Your task to perform on an android device: turn notification dots off Image 0: 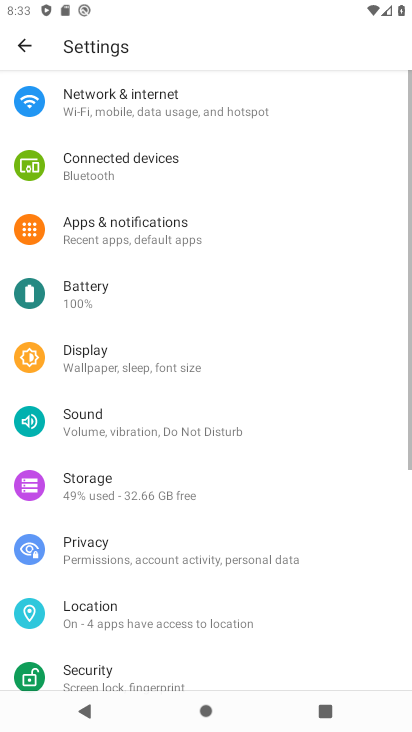
Step 0: click (228, 230)
Your task to perform on an android device: turn notification dots off Image 1: 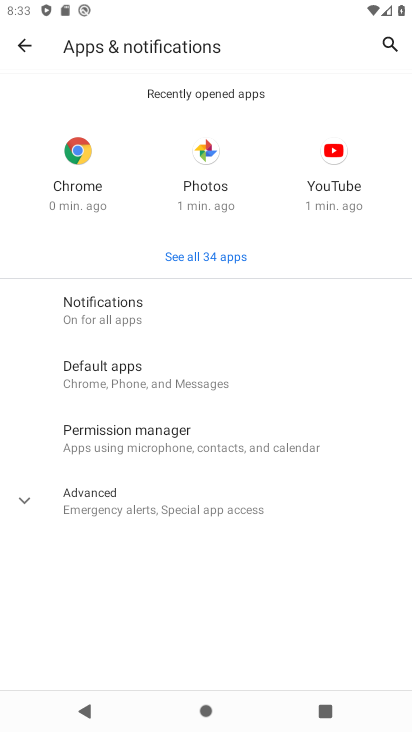
Step 1: click (104, 312)
Your task to perform on an android device: turn notification dots off Image 2: 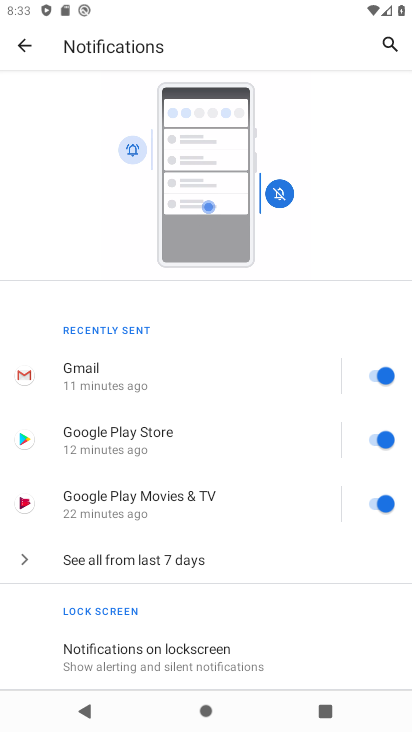
Step 2: drag from (200, 602) to (214, 251)
Your task to perform on an android device: turn notification dots off Image 3: 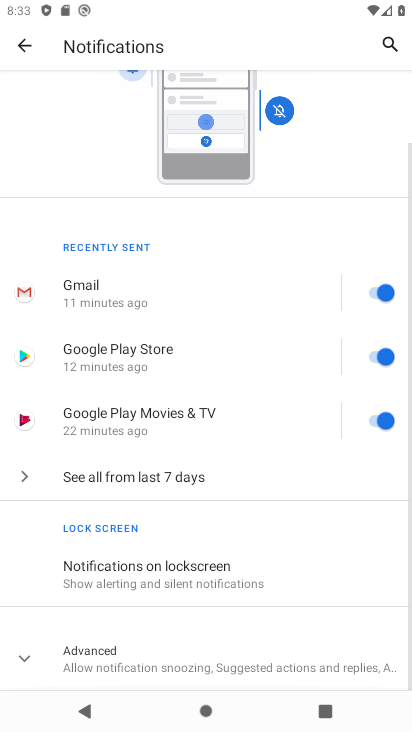
Step 3: click (105, 655)
Your task to perform on an android device: turn notification dots off Image 4: 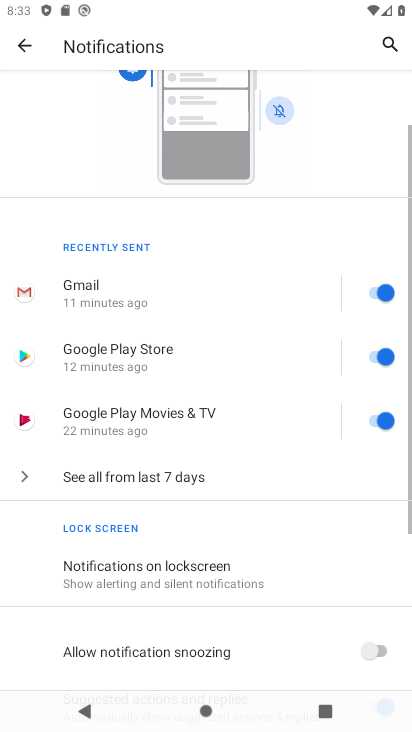
Step 4: drag from (251, 613) to (251, 264)
Your task to perform on an android device: turn notification dots off Image 5: 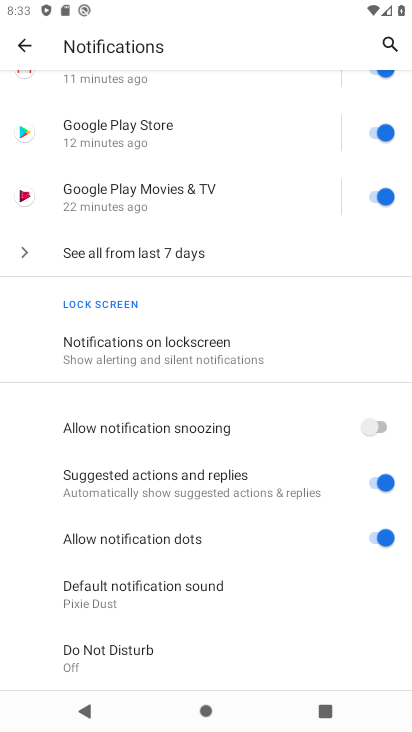
Step 5: click (386, 544)
Your task to perform on an android device: turn notification dots off Image 6: 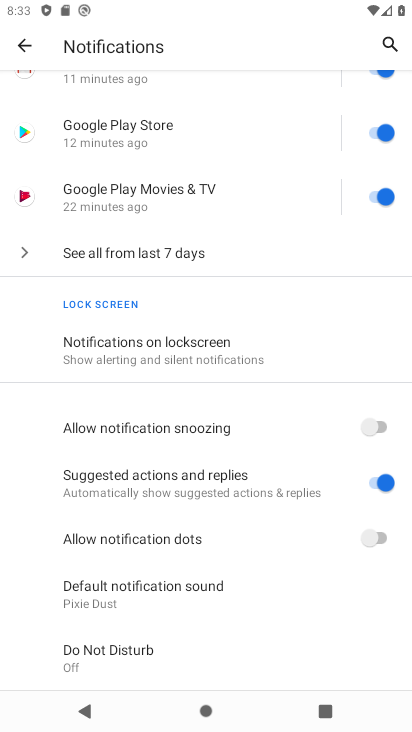
Step 6: task complete